Your task to perform on an android device: create a new album in the google photos Image 0: 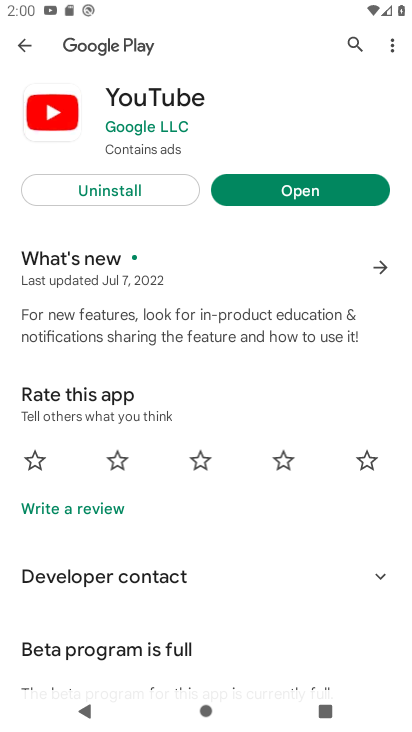
Step 0: press home button
Your task to perform on an android device: create a new album in the google photos Image 1: 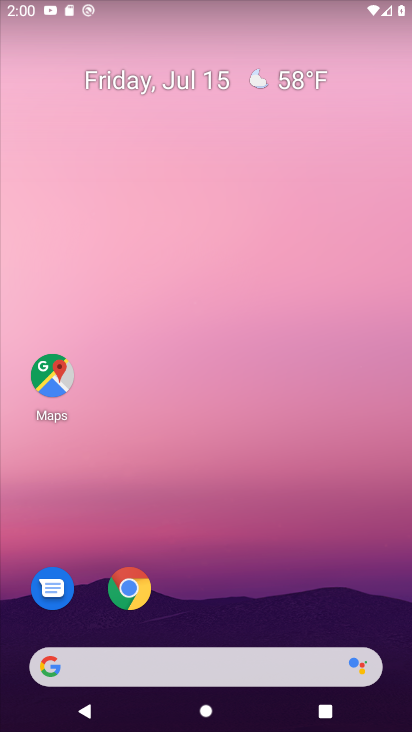
Step 1: drag from (224, 607) to (244, 199)
Your task to perform on an android device: create a new album in the google photos Image 2: 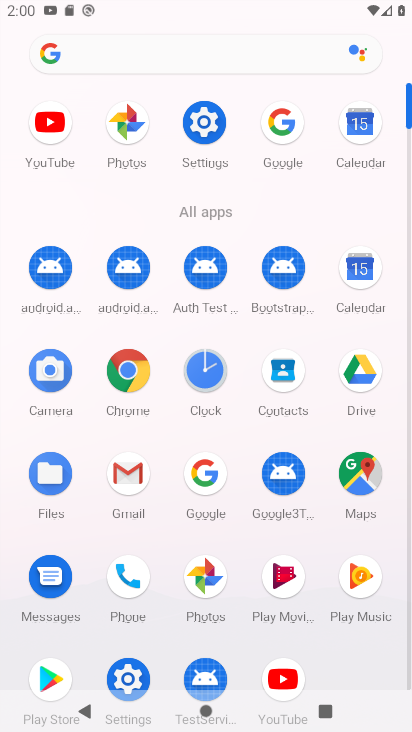
Step 2: click (191, 576)
Your task to perform on an android device: create a new album in the google photos Image 3: 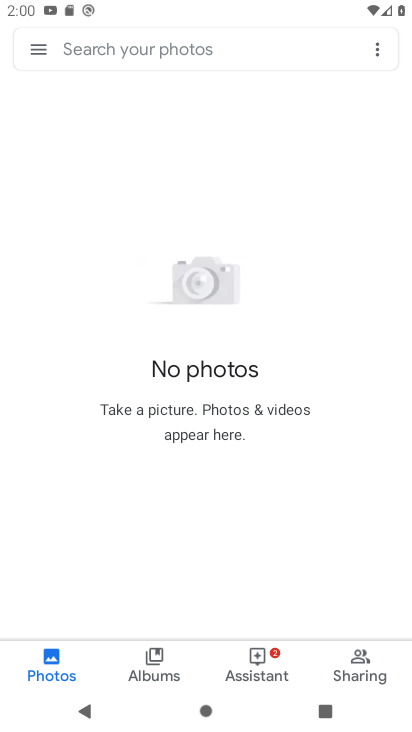
Step 3: click (145, 662)
Your task to perform on an android device: create a new album in the google photos Image 4: 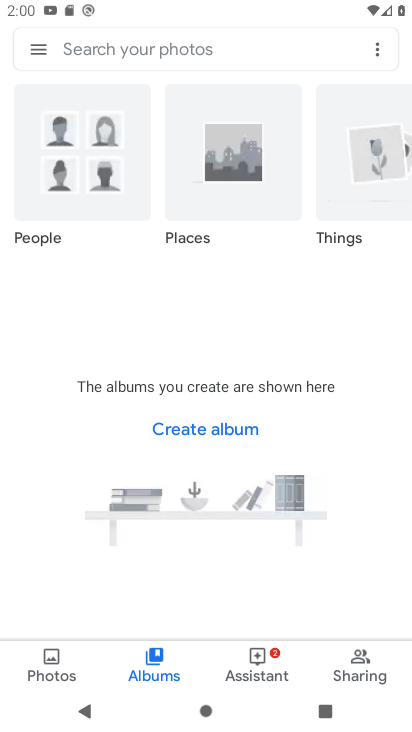
Step 4: click (204, 432)
Your task to perform on an android device: create a new album in the google photos Image 5: 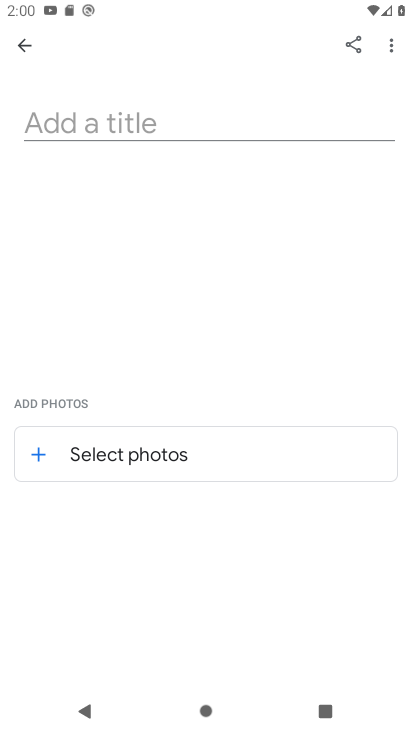
Step 5: click (180, 133)
Your task to perform on an android device: create a new album in the google photos Image 6: 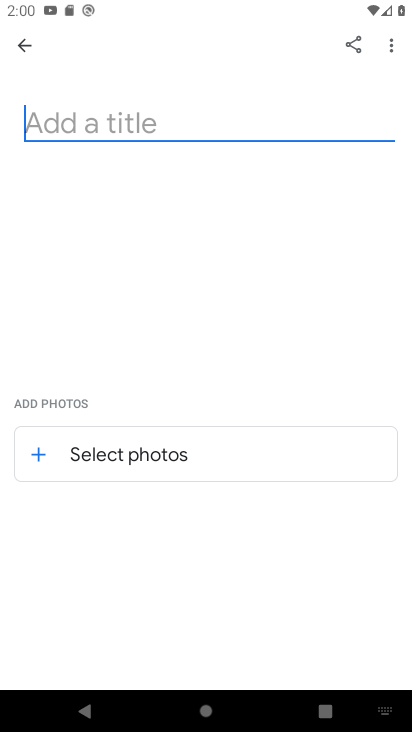
Step 6: type "nj"
Your task to perform on an android device: create a new album in the google photos Image 7: 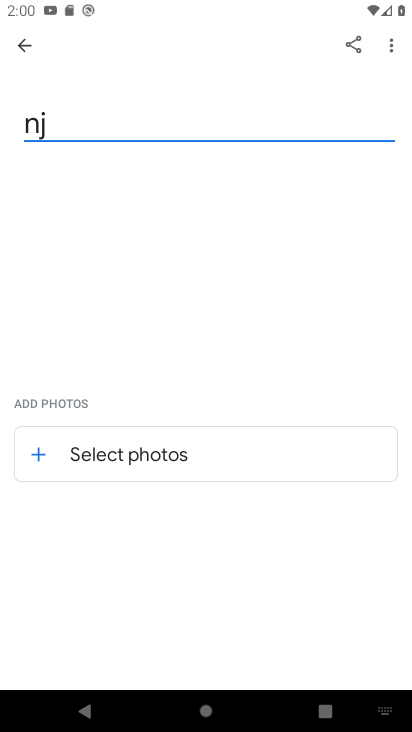
Step 7: click (48, 434)
Your task to perform on an android device: create a new album in the google photos Image 8: 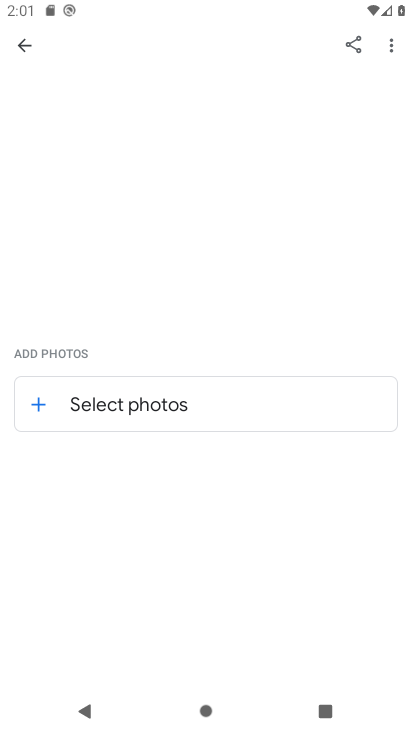
Step 8: click (34, 404)
Your task to perform on an android device: create a new album in the google photos Image 9: 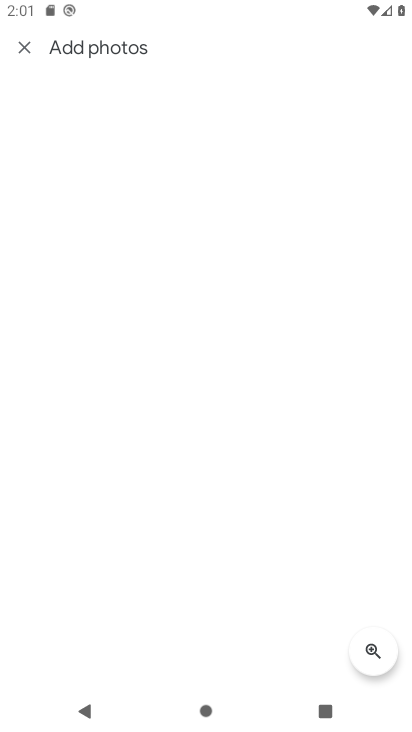
Step 9: task complete